Your task to perform on an android device: Open Chrome and go to the settings page Image 0: 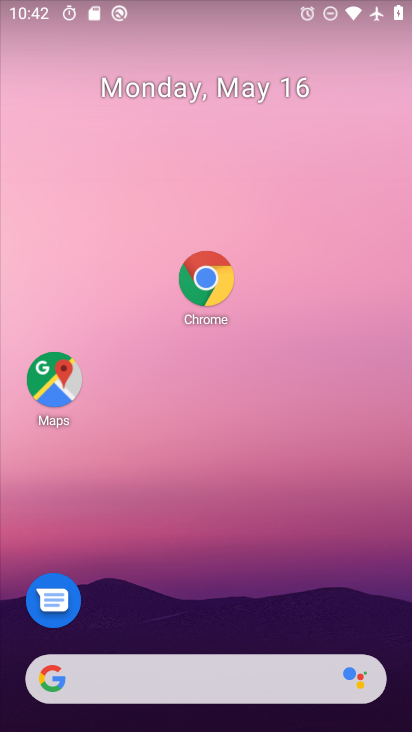
Step 0: click (195, 295)
Your task to perform on an android device: Open Chrome and go to the settings page Image 1: 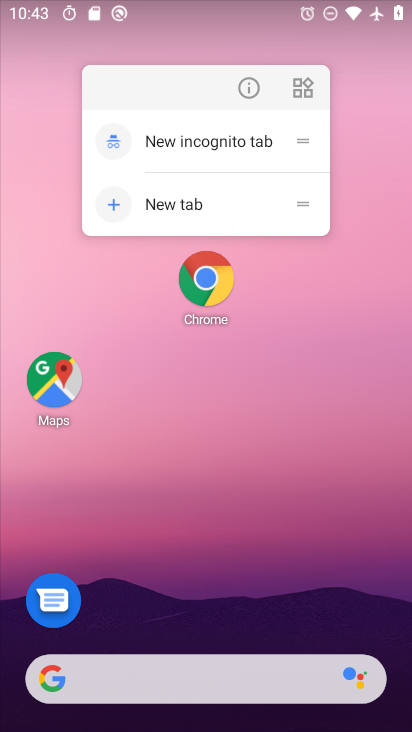
Step 1: click (198, 294)
Your task to perform on an android device: Open Chrome and go to the settings page Image 2: 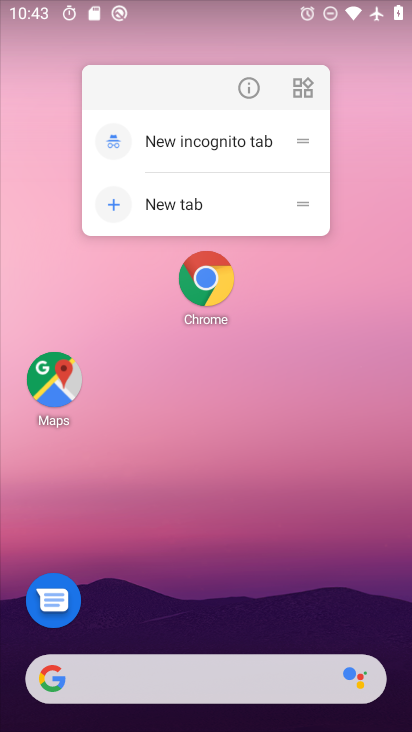
Step 2: click (209, 284)
Your task to perform on an android device: Open Chrome and go to the settings page Image 3: 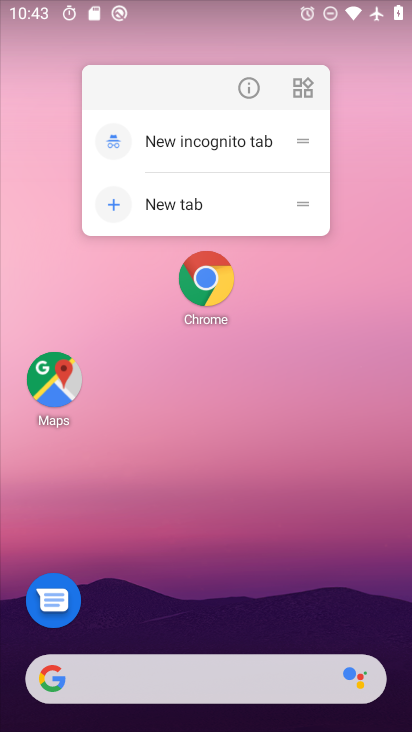
Step 3: click (214, 276)
Your task to perform on an android device: Open Chrome and go to the settings page Image 4: 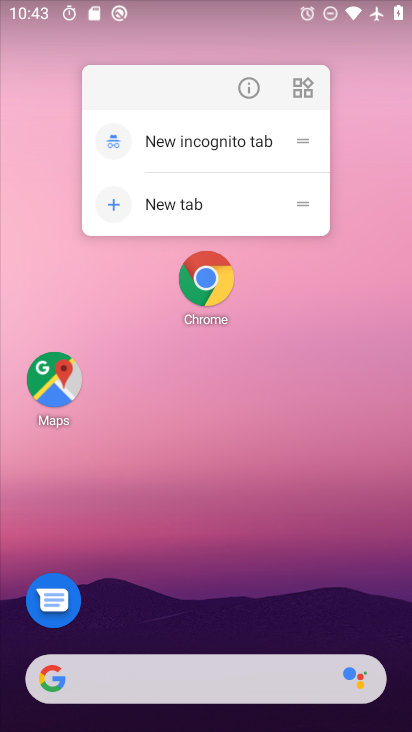
Step 4: click (202, 289)
Your task to perform on an android device: Open Chrome and go to the settings page Image 5: 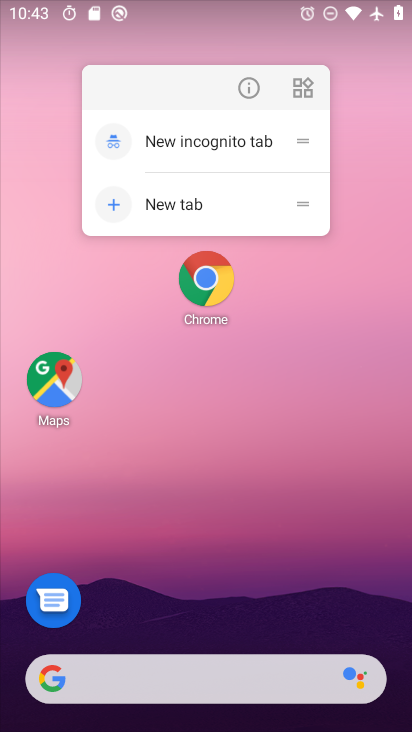
Step 5: drag from (179, 670) to (337, 92)
Your task to perform on an android device: Open Chrome and go to the settings page Image 6: 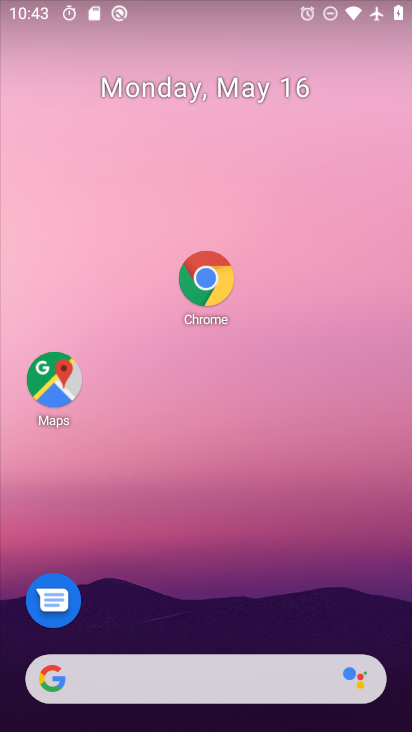
Step 6: drag from (186, 673) to (350, 59)
Your task to perform on an android device: Open Chrome and go to the settings page Image 7: 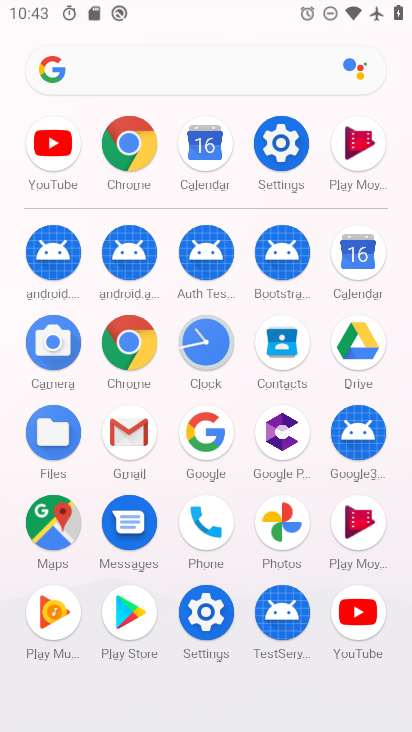
Step 7: click (128, 155)
Your task to perform on an android device: Open Chrome and go to the settings page Image 8: 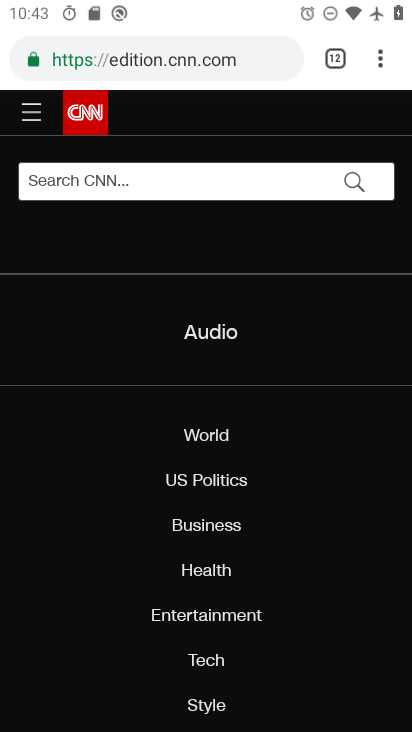
Step 8: task complete